Your task to perform on an android device: open a bookmark in the chrome app Image 0: 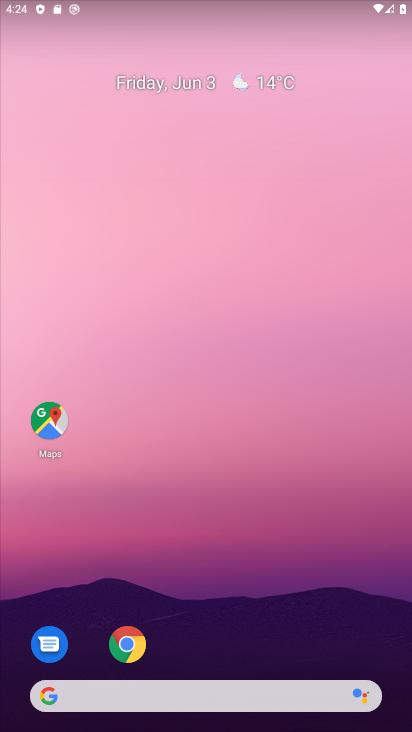
Step 0: click (124, 644)
Your task to perform on an android device: open a bookmark in the chrome app Image 1: 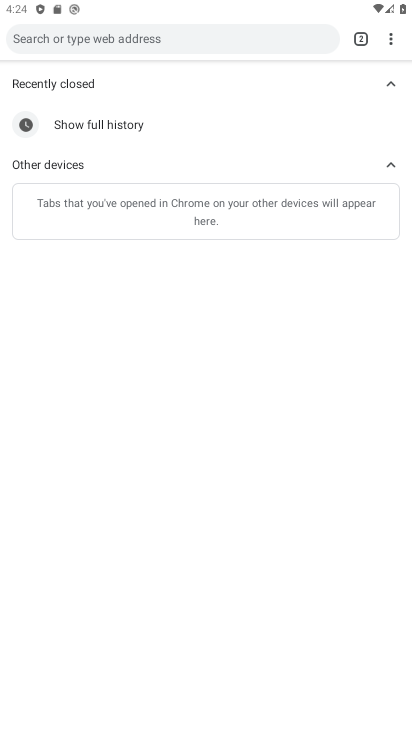
Step 1: click (395, 33)
Your task to perform on an android device: open a bookmark in the chrome app Image 2: 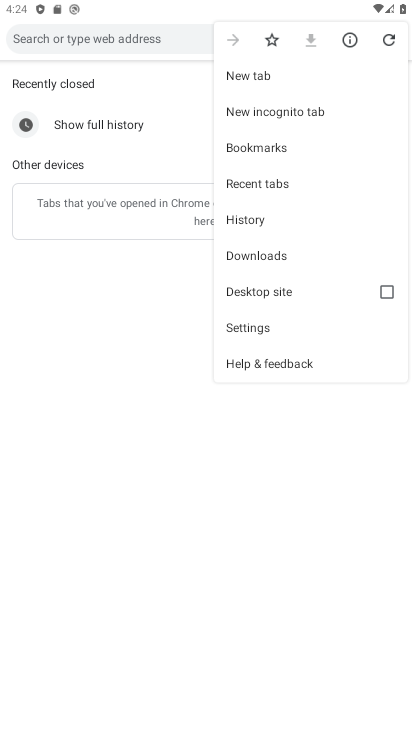
Step 2: click (255, 159)
Your task to perform on an android device: open a bookmark in the chrome app Image 3: 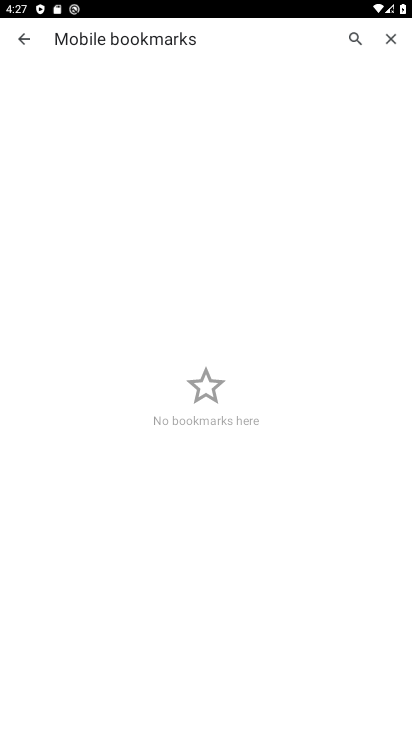
Step 3: task complete